Your task to perform on an android device: Show me productivity apps on the Play Store Image 0: 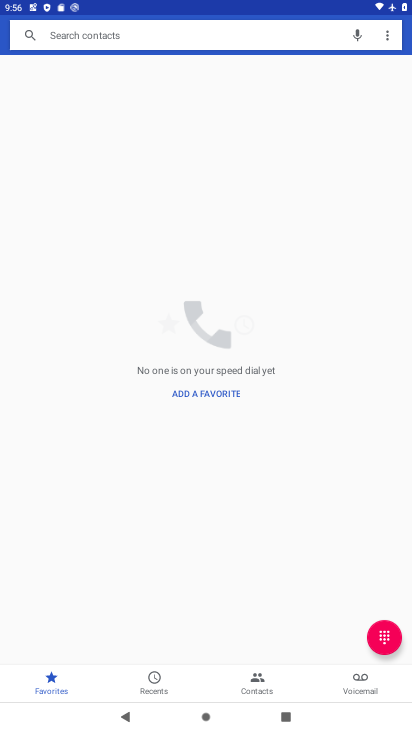
Step 0: press home button
Your task to perform on an android device: Show me productivity apps on the Play Store Image 1: 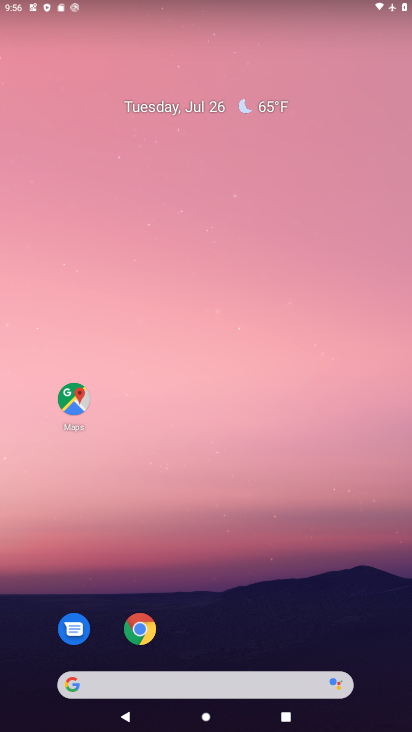
Step 1: drag from (259, 576) to (255, 21)
Your task to perform on an android device: Show me productivity apps on the Play Store Image 2: 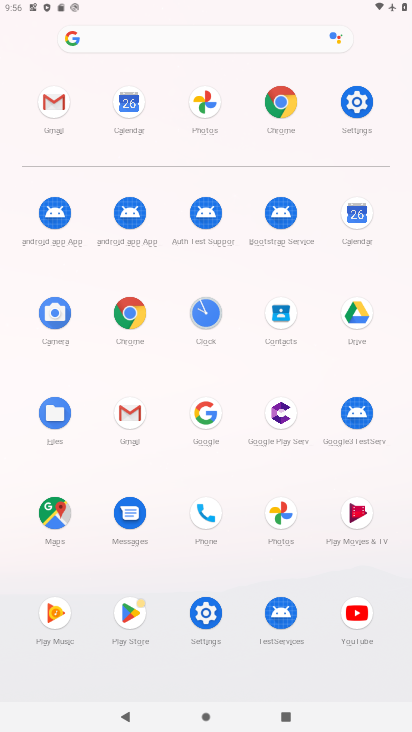
Step 2: click (119, 624)
Your task to perform on an android device: Show me productivity apps on the Play Store Image 3: 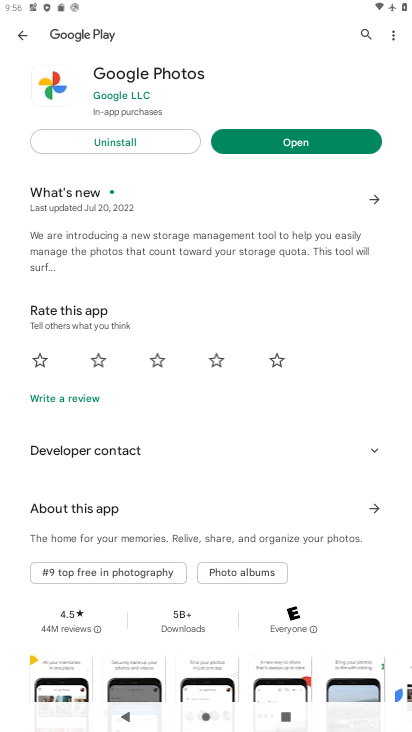
Step 3: click (27, 31)
Your task to perform on an android device: Show me productivity apps on the Play Store Image 4: 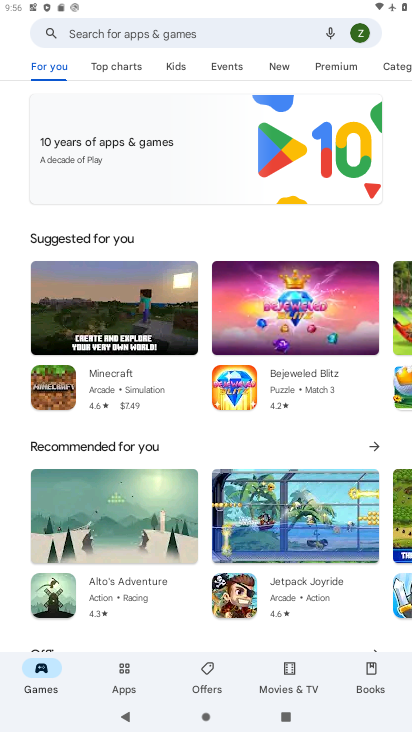
Step 4: click (130, 677)
Your task to perform on an android device: Show me productivity apps on the Play Store Image 5: 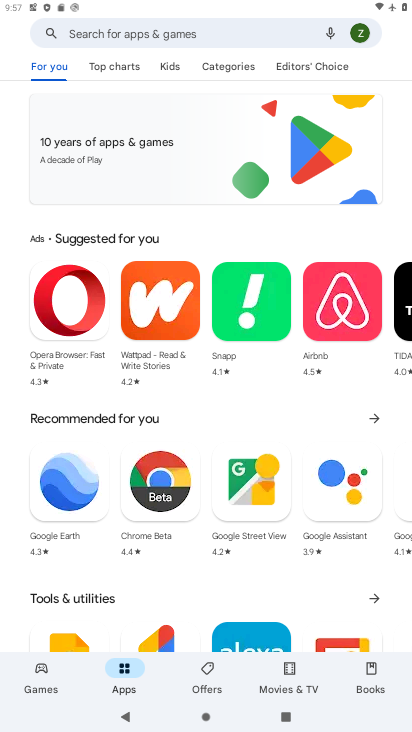
Step 5: task complete